Your task to perform on an android device: Go to battery settings Image 0: 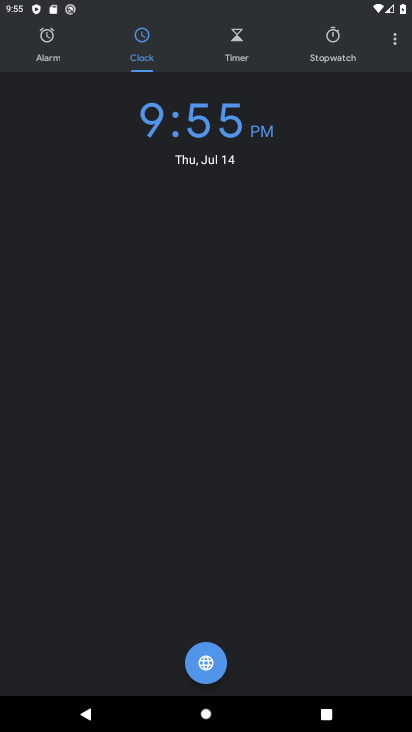
Step 0: press back button
Your task to perform on an android device: Go to battery settings Image 1: 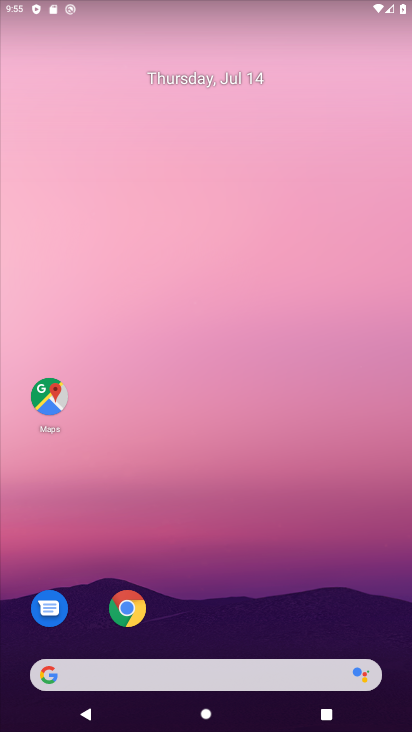
Step 1: drag from (150, 156) to (150, 121)
Your task to perform on an android device: Go to battery settings Image 2: 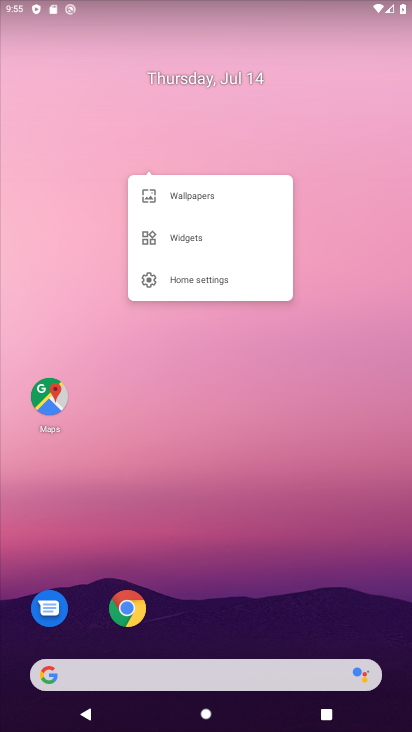
Step 2: click (204, 613)
Your task to perform on an android device: Go to battery settings Image 3: 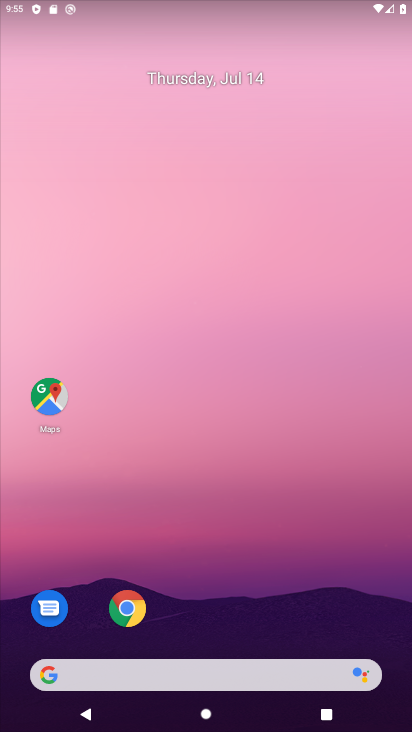
Step 3: drag from (204, 598) to (178, 59)
Your task to perform on an android device: Go to battery settings Image 4: 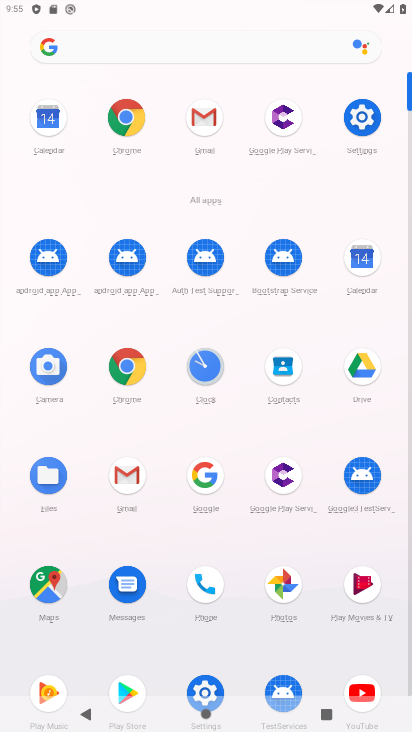
Step 4: click (366, 119)
Your task to perform on an android device: Go to battery settings Image 5: 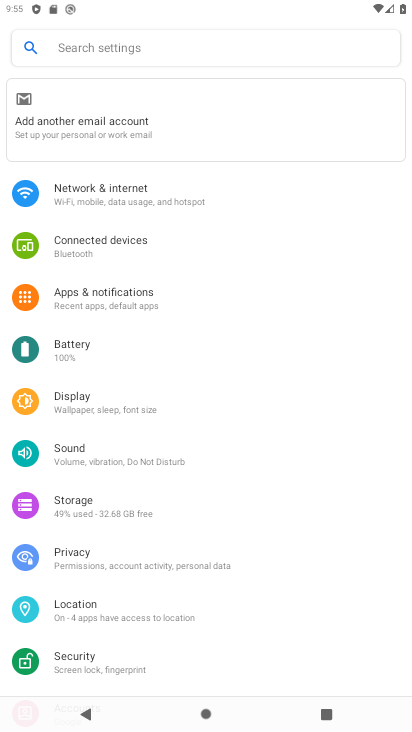
Step 5: click (53, 353)
Your task to perform on an android device: Go to battery settings Image 6: 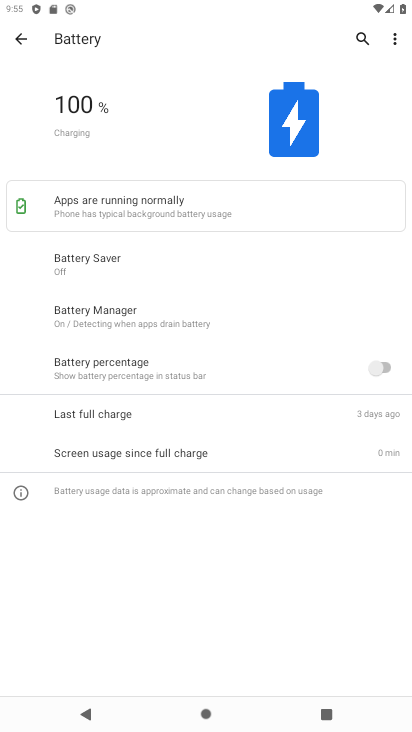
Step 6: task complete